Your task to perform on an android device: check data usage Image 0: 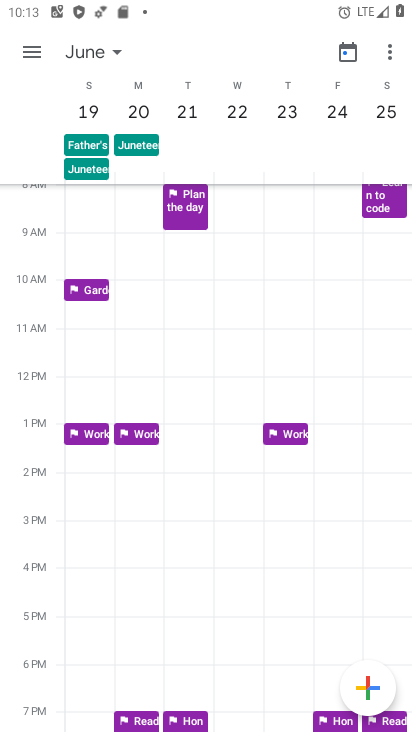
Step 0: press home button
Your task to perform on an android device: check data usage Image 1: 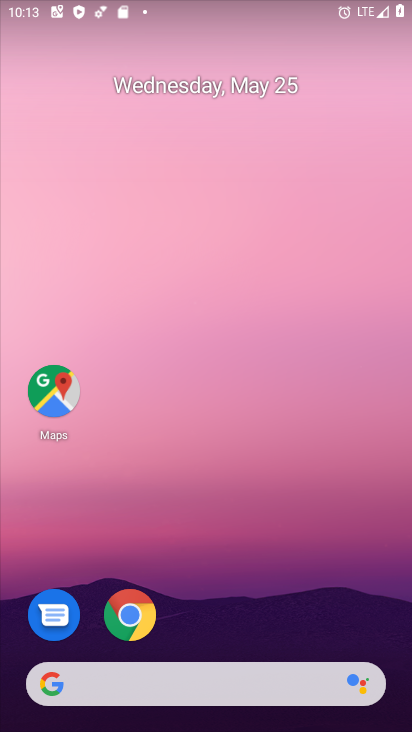
Step 1: drag from (269, 598) to (296, 36)
Your task to perform on an android device: check data usage Image 2: 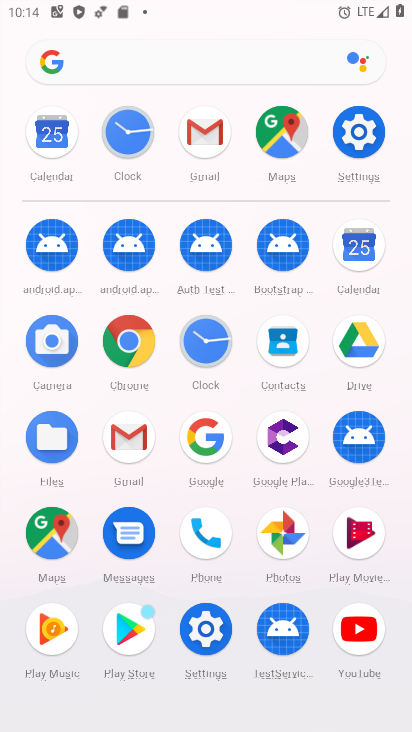
Step 2: click (356, 131)
Your task to perform on an android device: check data usage Image 3: 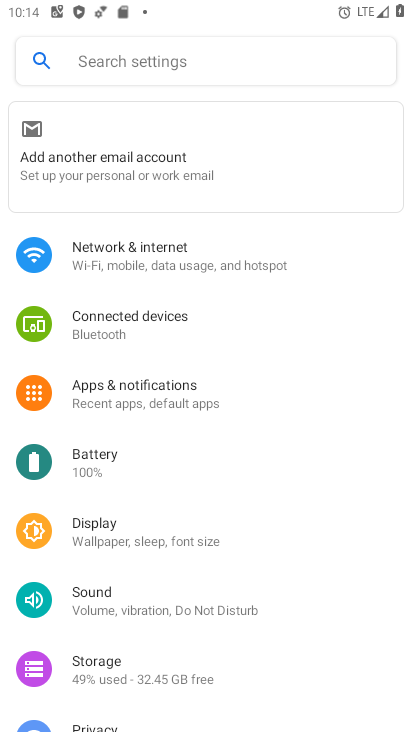
Step 3: click (230, 257)
Your task to perform on an android device: check data usage Image 4: 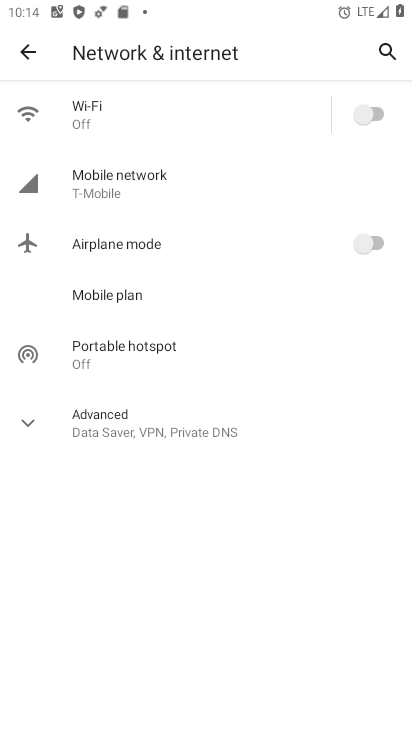
Step 4: click (232, 184)
Your task to perform on an android device: check data usage Image 5: 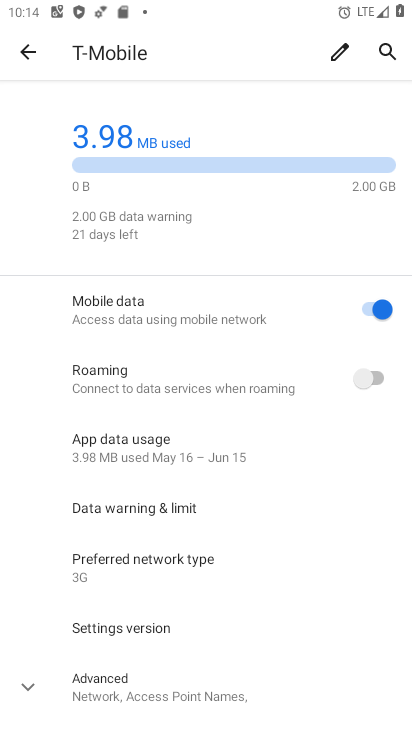
Step 5: task complete